Your task to perform on an android device: Do I have any events this weekend? Image 0: 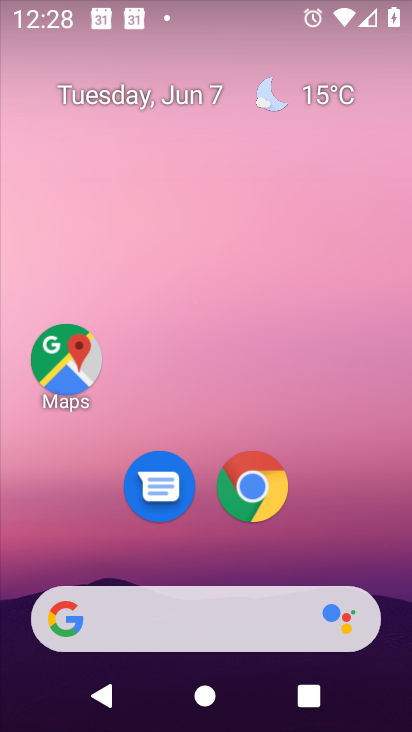
Step 0: click (182, 93)
Your task to perform on an android device: Do I have any events this weekend? Image 1: 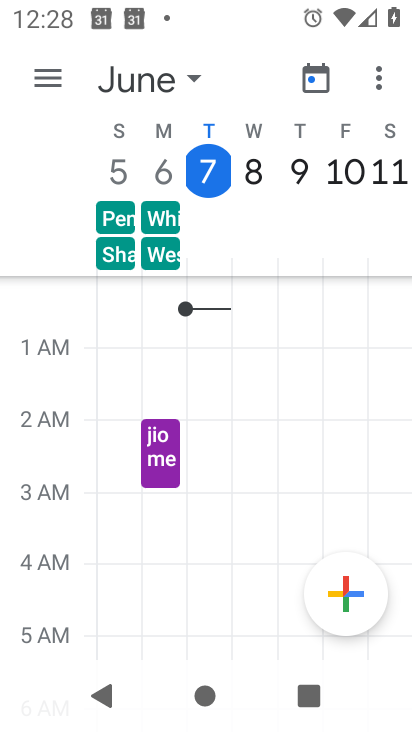
Step 1: click (16, 25)
Your task to perform on an android device: Do I have any events this weekend? Image 2: 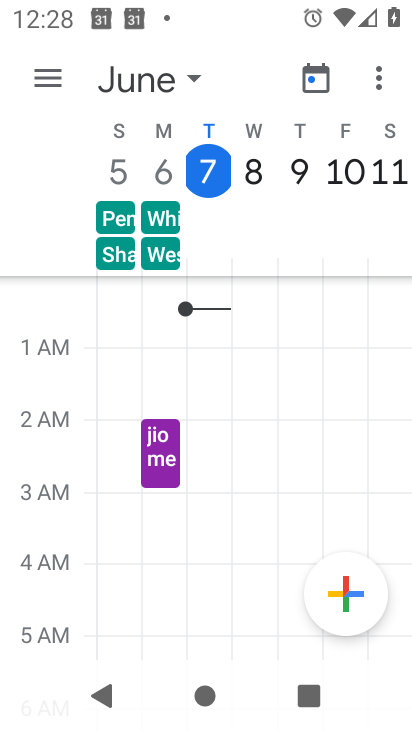
Step 2: task complete